Your task to perform on an android device: clear all cookies in the chrome app Image 0: 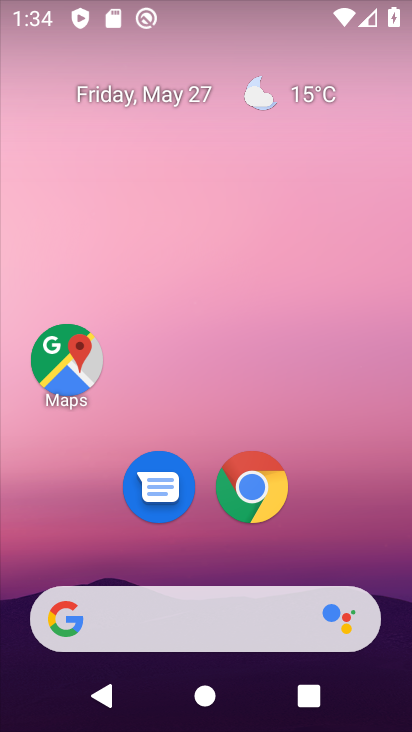
Step 0: click (259, 488)
Your task to perform on an android device: clear all cookies in the chrome app Image 1: 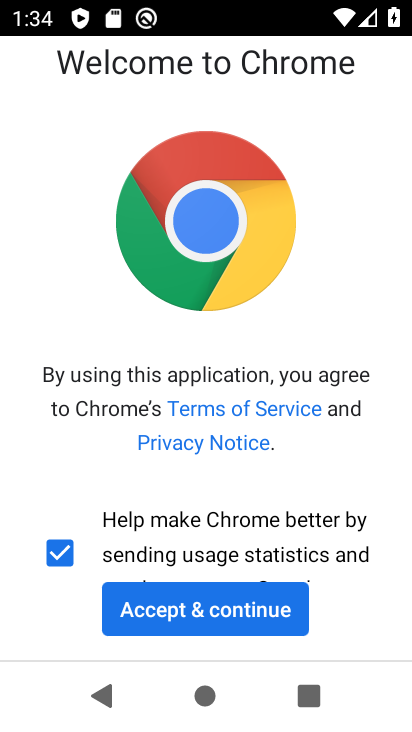
Step 1: click (247, 613)
Your task to perform on an android device: clear all cookies in the chrome app Image 2: 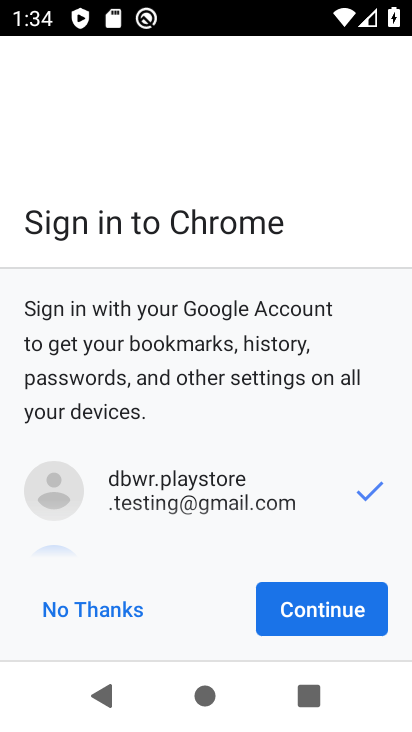
Step 2: click (283, 612)
Your task to perform on an android device: clear all cookies in the chrome app Image 3: 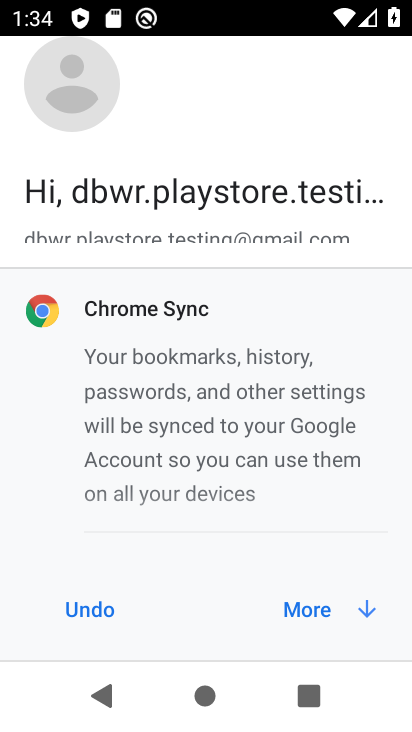
Step 3: click (290, 603)
Your task to perform on an android device: clear all cookies in the chrome app Image 4: 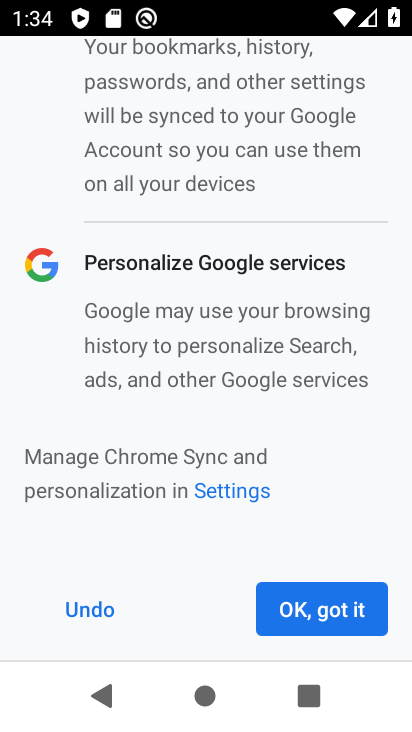
Step 4: click (290, 603)
Your task to perform on an android device: clear all cookies in the chrome app Image 5: 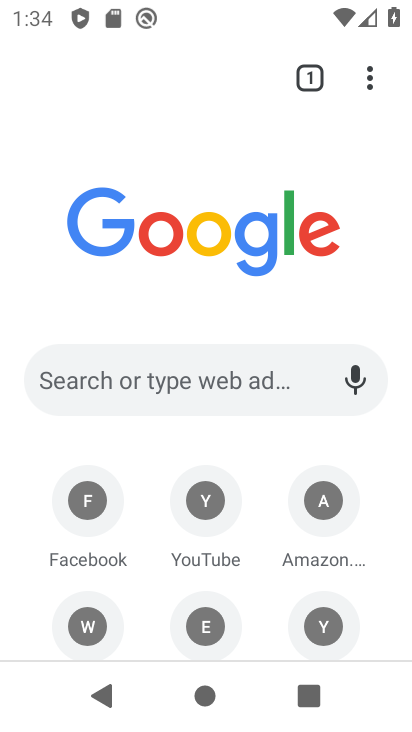
Step 5: task complete